Your task to perform on an android device: read, delete, or share a saved page in the chrome app Image 0: 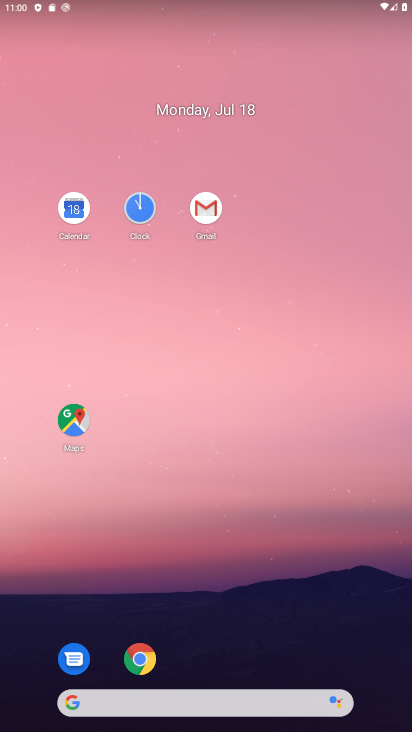
Step 0: click (144, 655)
Your task to perform on an android device: read, delete, or share a saved page in the chrome app Image 1: 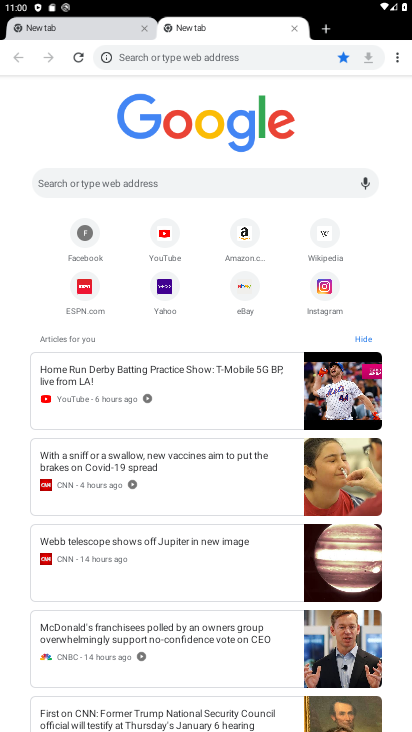
Step 1: click (396, 56)
Your task to perform on an android device: read, delete, or share a saved page in the chrome app Image 2: 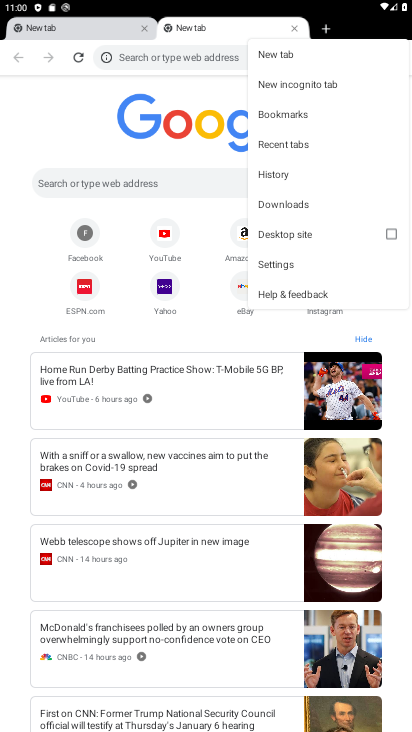
Step 2: click (340, 198)
Your task to perform on an android device: read, delete, or share a saved page in the chrome app Image 3: 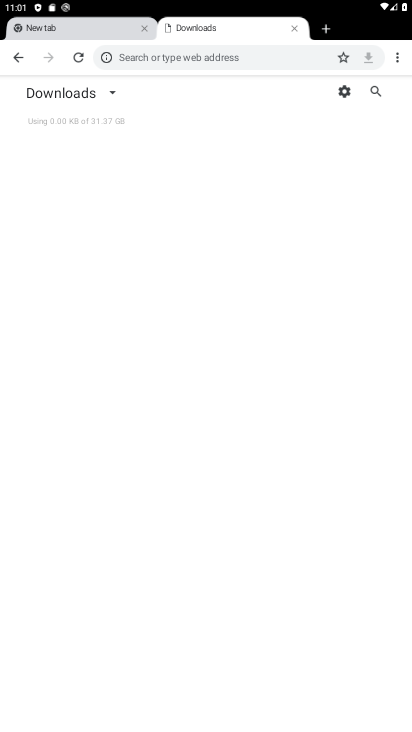
Step 3: task complete